Your task to perform on an android device: Open Chrome and go to settings Image 0: 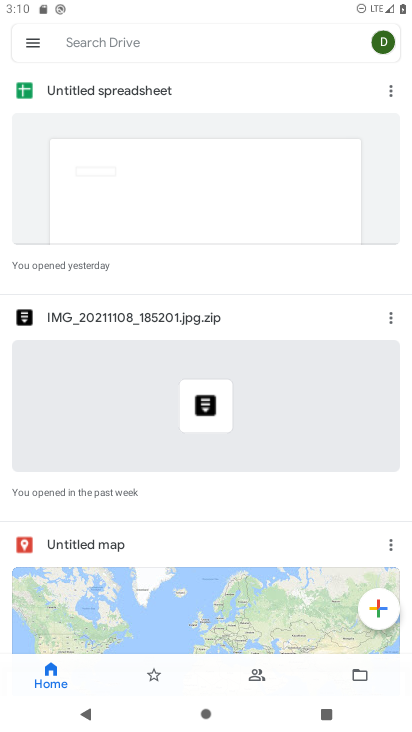
Step 0: press home button
Your task to perform on an android device: Open Chrome and go to settings Image 1: 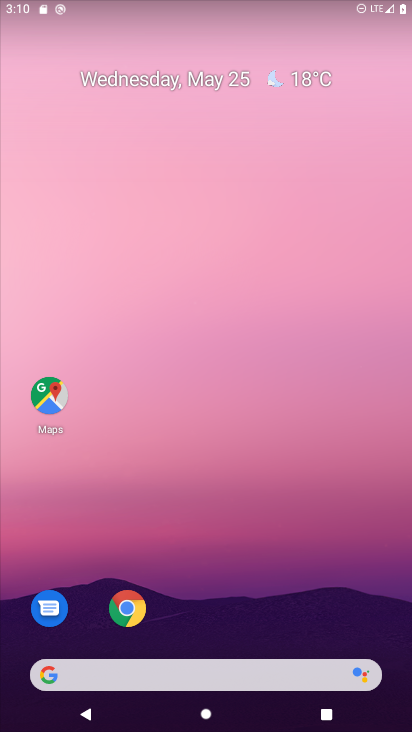
Step 1: click (127, 607)
Your task to perform on an android device: Open Chrome and go to settings Image 2: 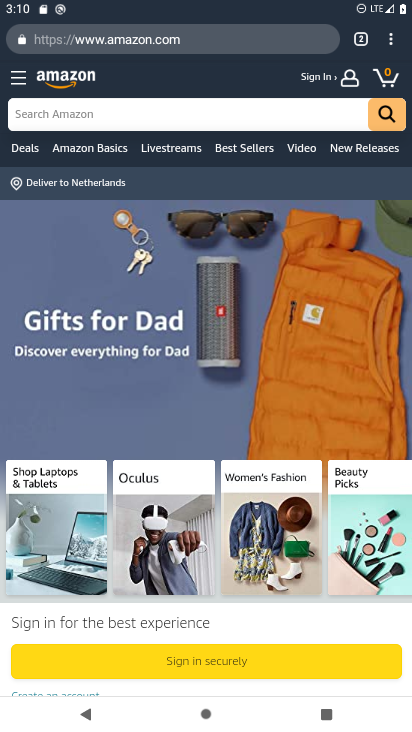
Step 2: click (391, 42)
Your task to perform on an android device: Open Chrome and go to settings Image 3: 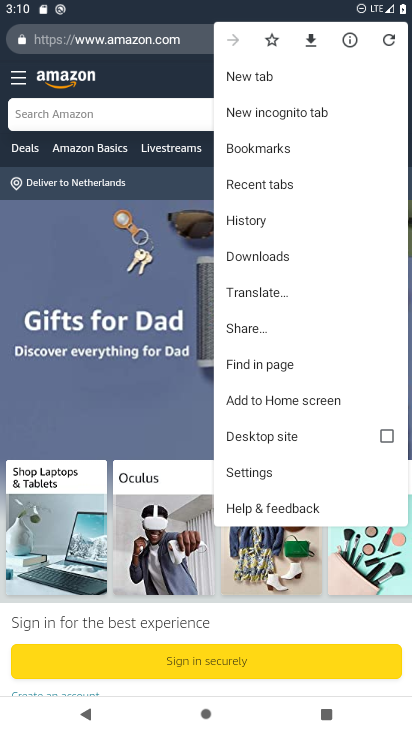
Step 3: click (261, 467)
Your task to perform on an android device: Open Chrome and go to settings Image 4: 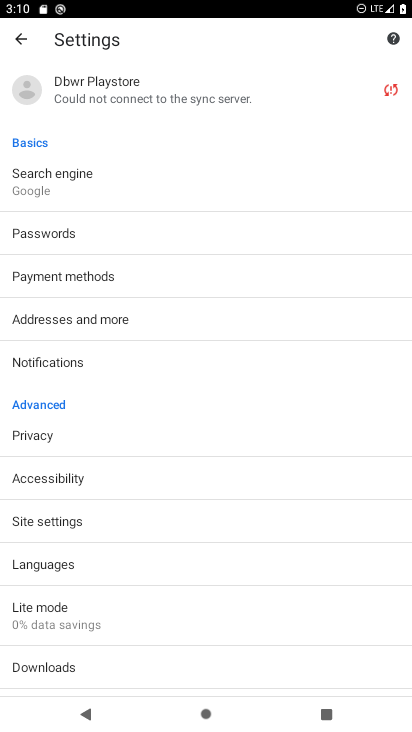
Step 4: task complete